Your task to perform on an android device: set the stopwatch Image 0: 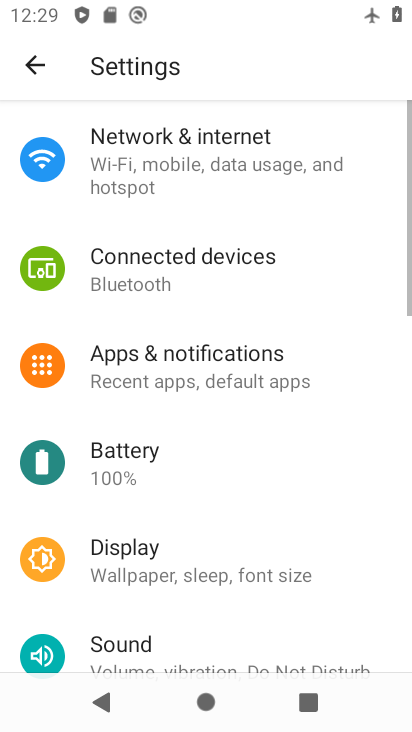
Step 0: press home button
Your task to perform on an android device: set the stopwatch Image 1: 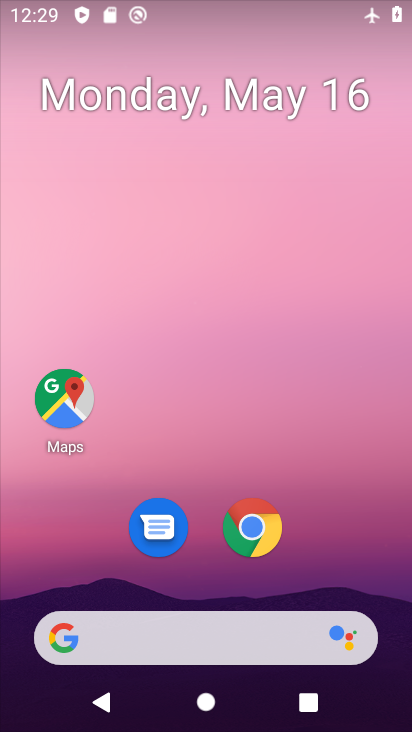
Step 1: drag from (176, 649) to (321, 93)
Your task to perform on an android device: set the stopwatch Image 2: 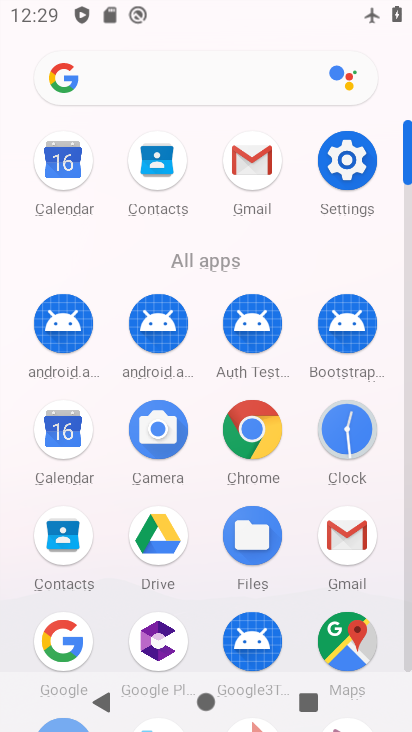
Step 2: click (339, 452)
Your task to perform on an android device: set the stopwatch Image 3: 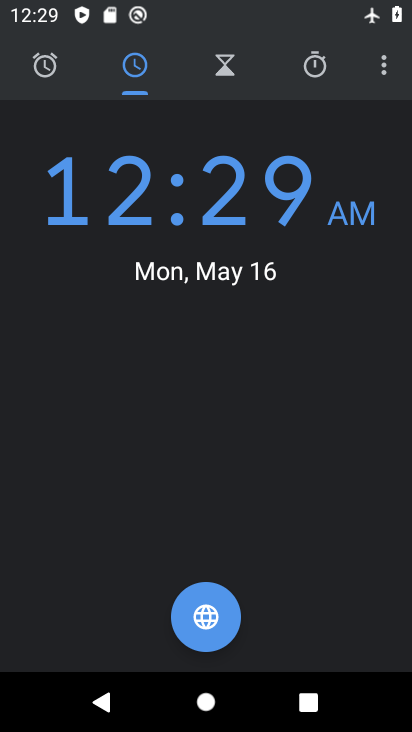
Step 3: click (321, 75)
Your task to perform on an android device: set the stopwatch Image 4: 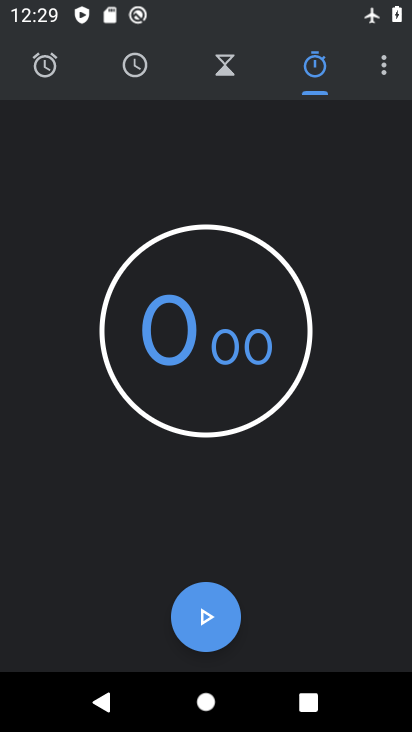
Step 4: click (214, 320)
Your task to perform on an android device: set the stopwatch Image 5: 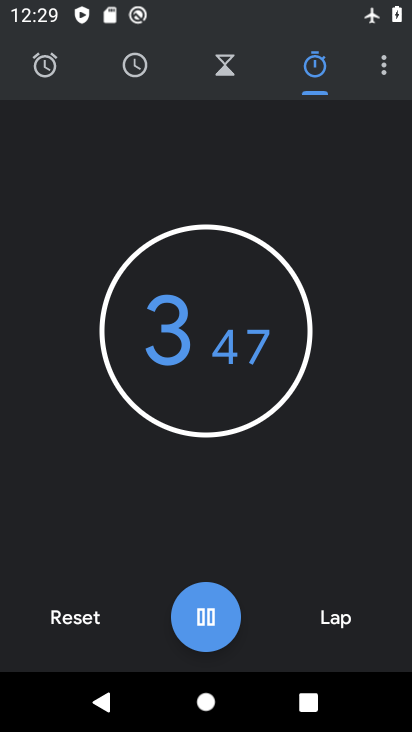
Step 5: click (214, 321)
Your task to perform on an android device: set the stopwatch Image 6: 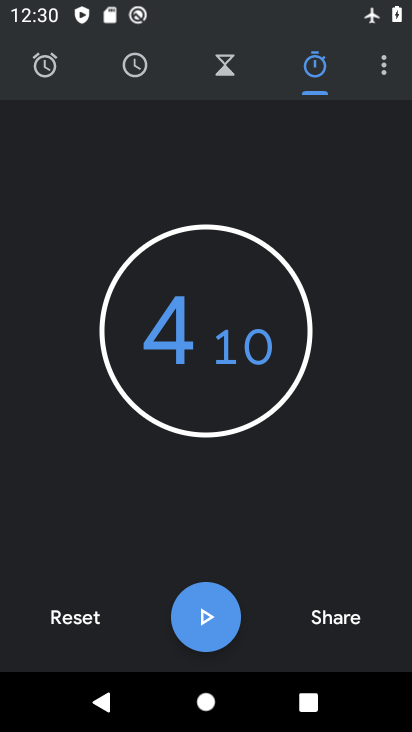
Step 6: task complete